Your task to perform on an android device: Open network settings Image 0: 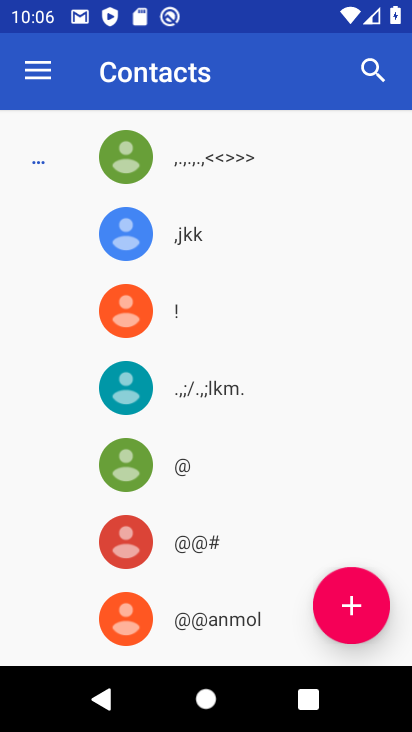
Step 0: press home button
Your task to perform on an android device: Open network settings Image 1: 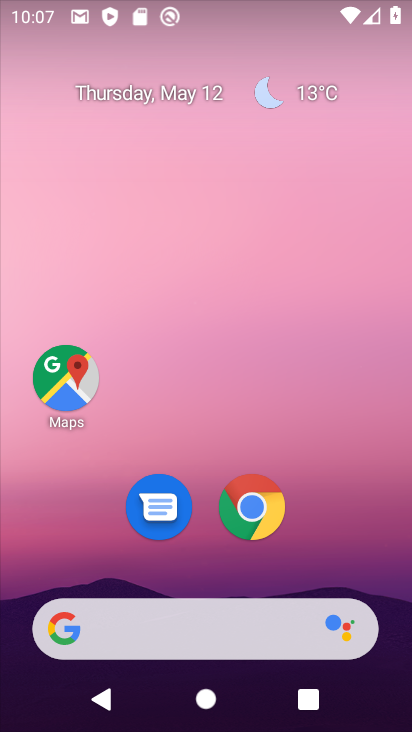
Step 1: drag from (320, 553) to (305, 65)
Your task to perform on an android device: Open network settings Image 2: 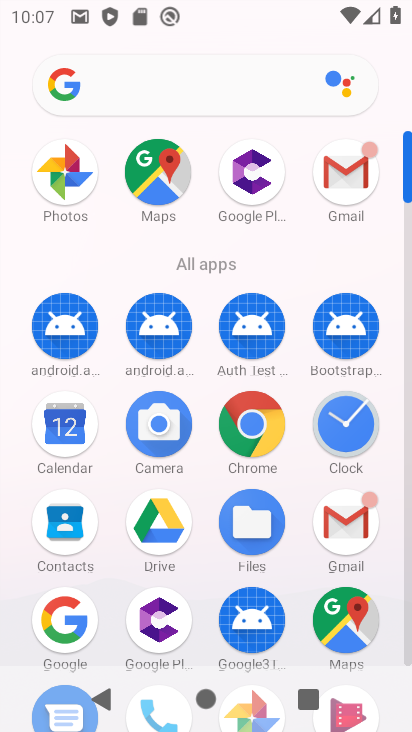
Step 2: drag from (294, 279) to (306, 47)
Your task to perform on an android device: Open network settings Image 3: 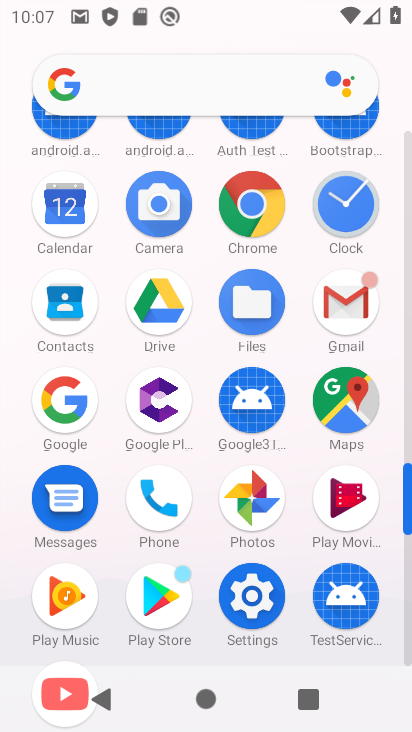
Step 3: click (252, 607)
Your task to perform on an android device: Open network settings Image 4: 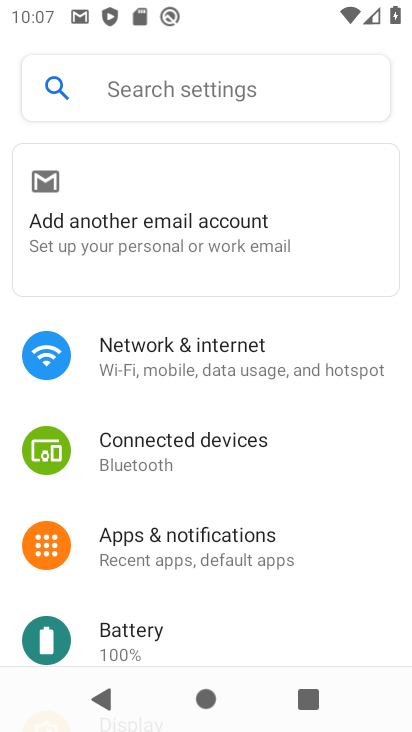
Step 4: click (207, 363)
Your task to perform on an android device: Open network settings Image 5: 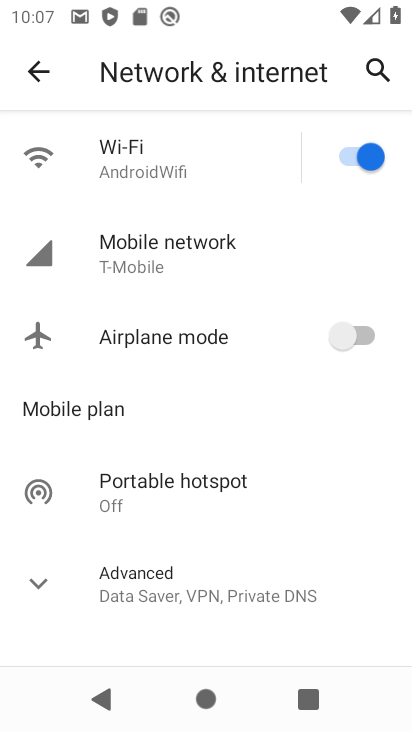
Step 5: task complete